Your task to perform on an android device: Open calendar and show me the fourth week of next month Image 0: 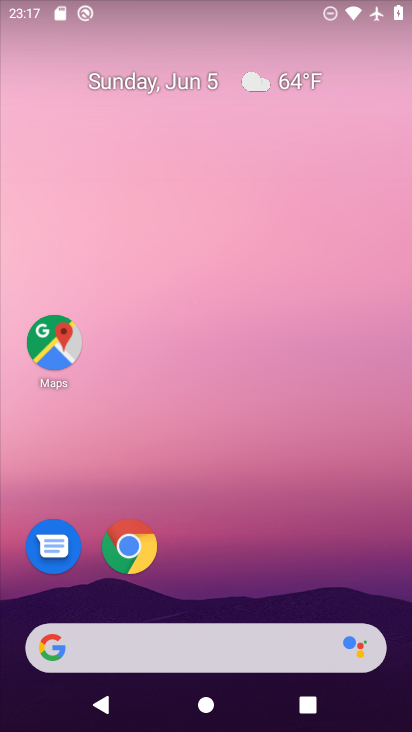
Step 0: drag from (229, 598) to (331, 49)
Your task to perform on an android device: Open calendar and show me the fourth week of next month Image 1: 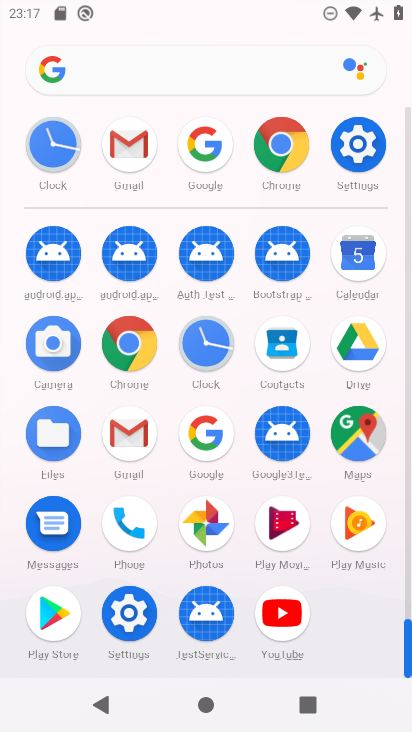
Step 1: click (372, 249)
Your task to perform on an android device: Open calendar and show me the fourth week of next month Image 2: 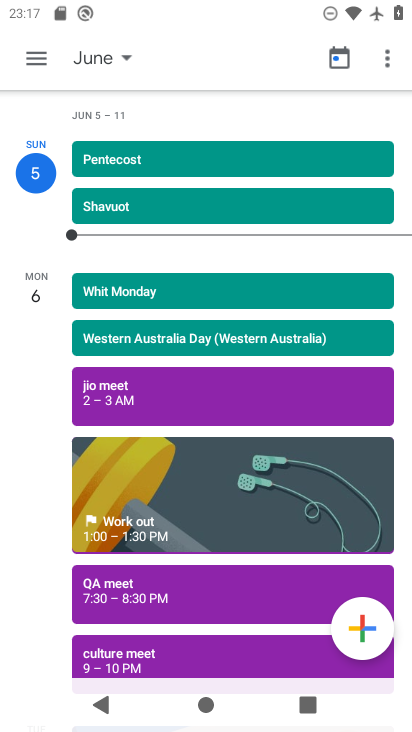
Step 2: drag from (216, 498) to (288, 108)
Your task to perform on an android device: Open calendar and show me the fourth week of next month Image 3: 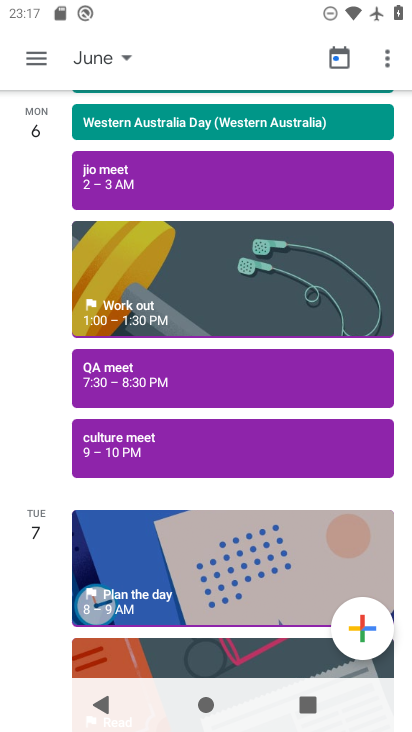
Step 3: click (96, 56)
Your task to perform on an android device: Open calendar and show me the fourth week of next month Image 4: 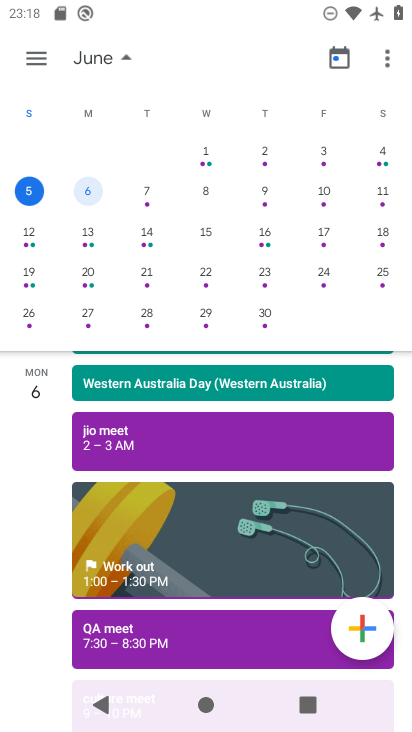
Step 4: drag from (213, 503) to (268, 141)
Your task to perform on an android device: Open calendar and show me the fourth week of next month Image 5: 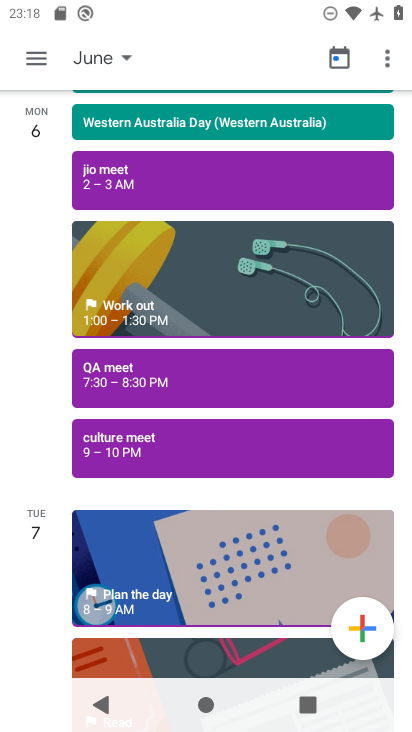
Step 5: drag from (209, 245) to (228, 711)
Your task to perform on an android device: Open calendar and show me the fourth week of next month Image 6: 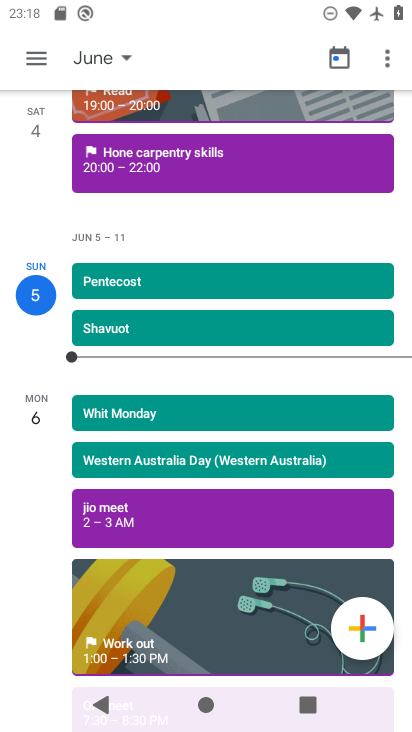
Step 6: click (101, 61)
Your task to perform on an android device: Open calendar and show me the fourth week of next month Image 7: 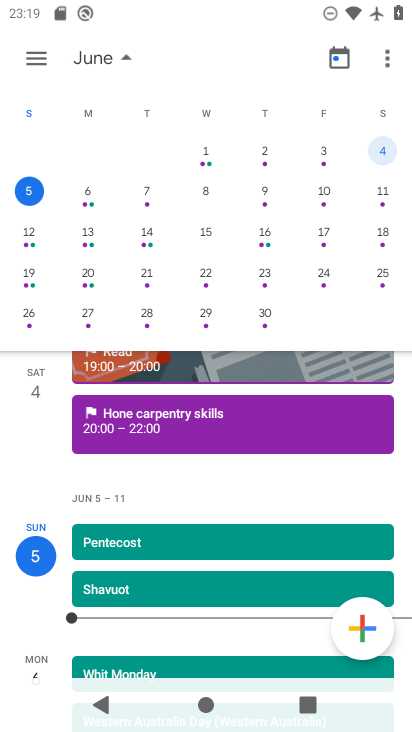
Step 7: drag from (200, 485) to (256, 126)
Your task to perform on an android device: Open calendar and show me the fourth week of next month Image 8: 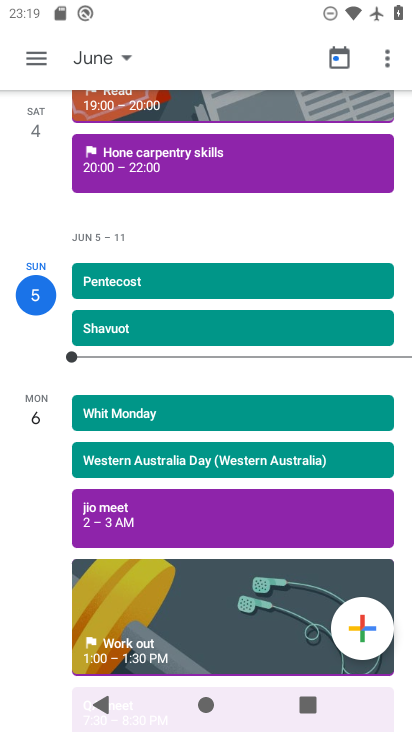
Step 8: drag from (201, 213) to (340, 727)
Your task to perform on an android device: Open calendar and show me the fourth week of next month Image 9: 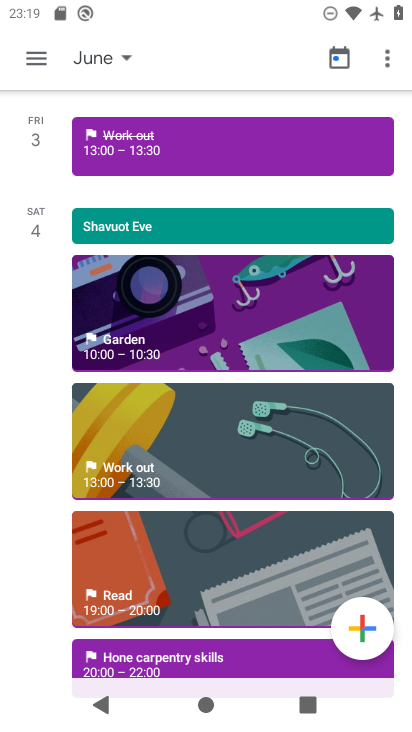
Step 9: drag from (214, 355) to (315, 730)
Your task to perform on an android device: Open calendar and show me the fourth week of next month Image 10: 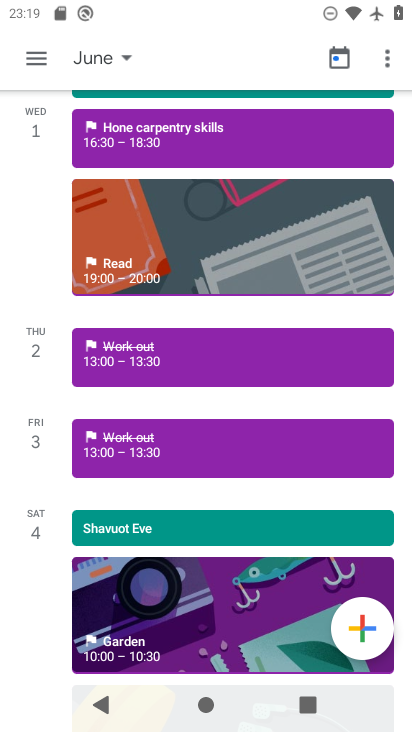
Step 10: click (108, 38)
Your task to perform on an android device: Open calendar and show me the fourth week of next month Image 11: 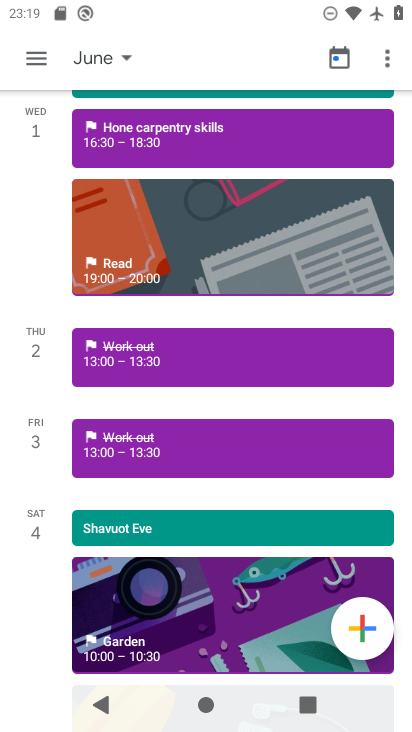
Step 11: click (127, 61)
Your task to perform on an android device: Open calendar and show me the fourth week of next month Image 12: 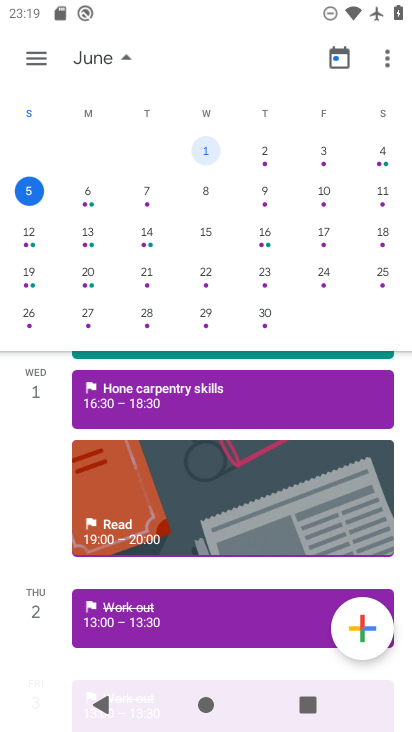
Step 12: click (238, 270)
Your task to perform on an android device: Open calendar and show me the fourth week of next month Image 13: 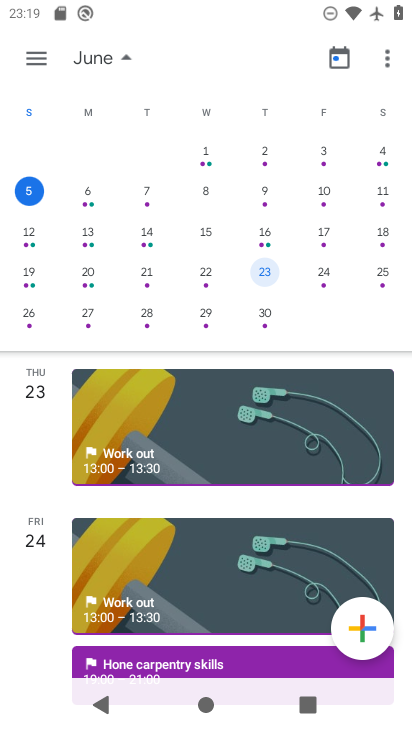
Step 13: drag from (317, 239) to (28, 211)
Your task to perform on an android device: Open calendar and show me the fourth week of next month Image 14: 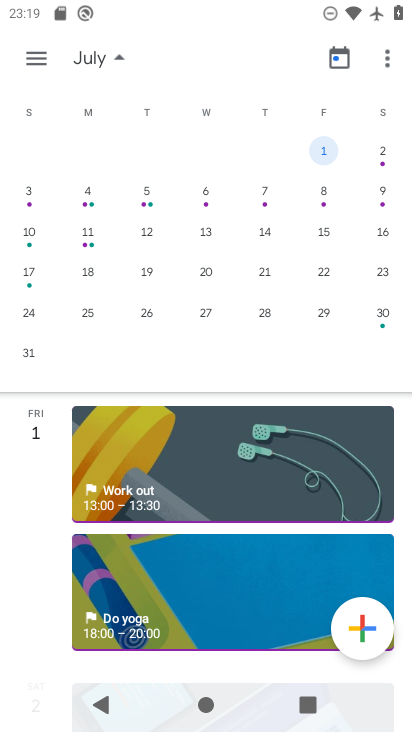
Step 14: click (262, 275)
Your task to perform on an android device: Open calendar and show me the fourth week of next month Image 15: 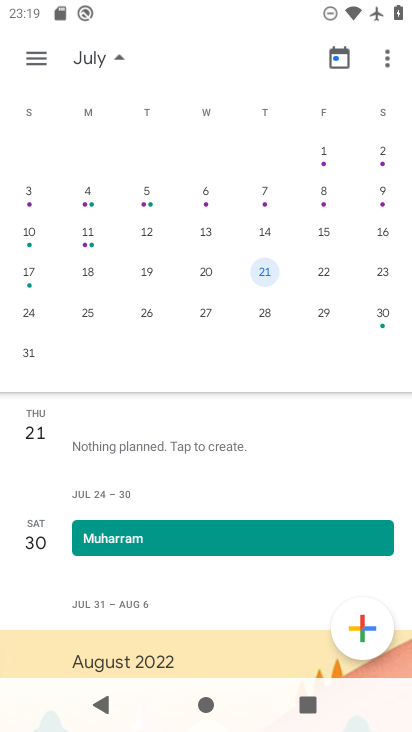
Step 15: task complete